Your task to perform on an android device: Is it going to rain this weekend? Image 0: 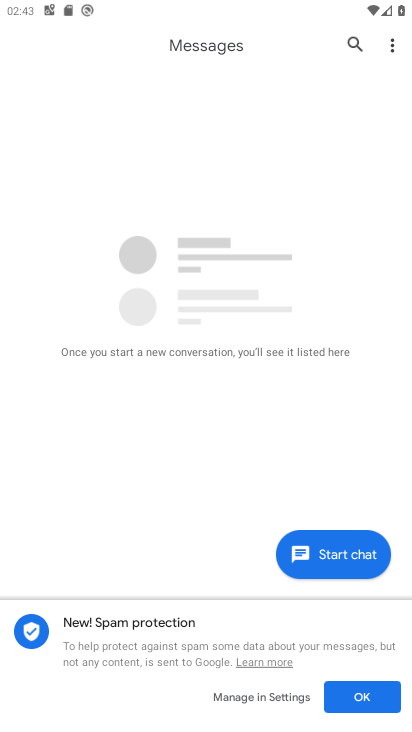
Step 0: press home button
Your task to perform on an android device: Is it going to rain this weekend? Image 1: 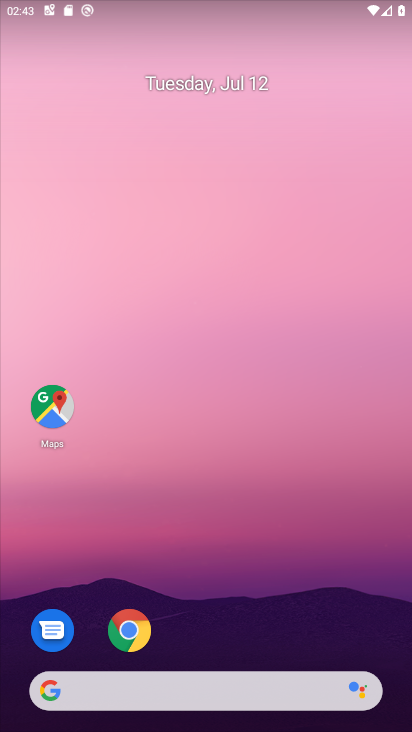
Step 1: drag from (5, 250) to (326, 279)
Your task to perform on an android device: Is it going to rain this weekend? Image 2: 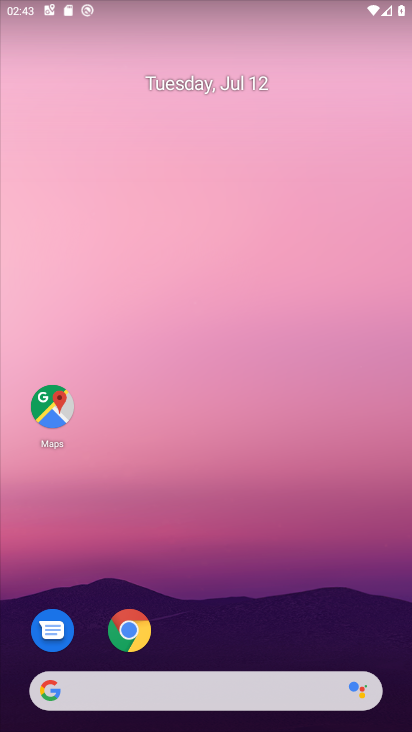
Step 2: drag from (7, 273) to (409, 252)
Your task to perform on an android device: Is it going to rain this weekend? Image 3: 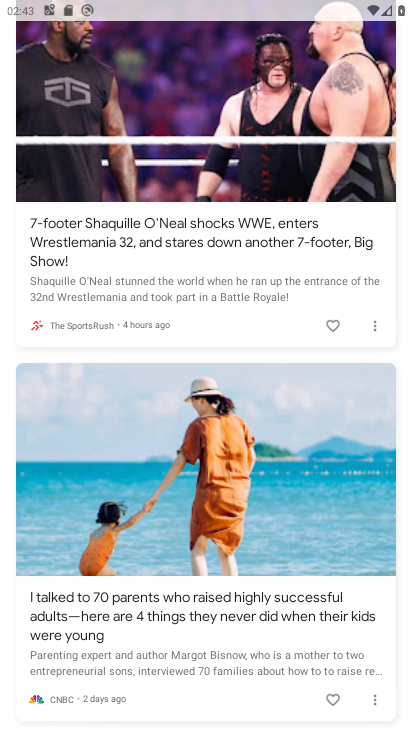
Step 3: drag from (200, 131) to (230, 549)
Your task to perform on an android device: Is it going to rain this weekend? Image 4: 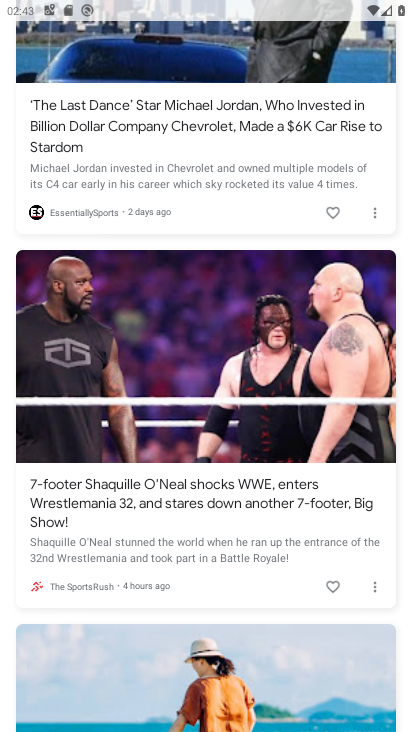
Step 4: drag from (223, 140) to (237, 599)
Your task to perform on an android device: Is it going to rain this weekend? Image 5: 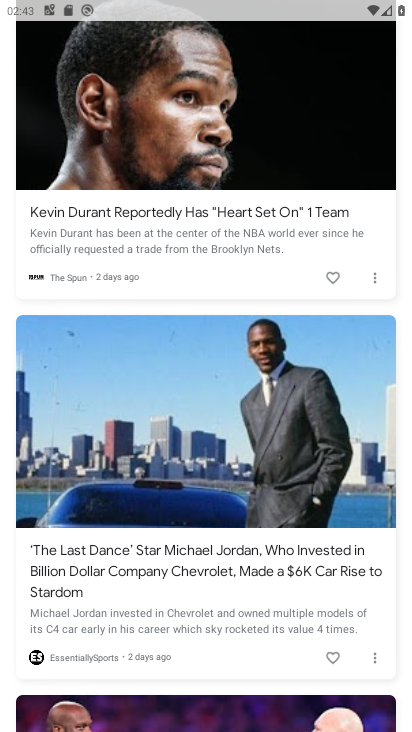
Step 5: drag from (229, 142) to (221, 526)
Your task to perform on an android device: Is it going to rain this weekend? Image 6: 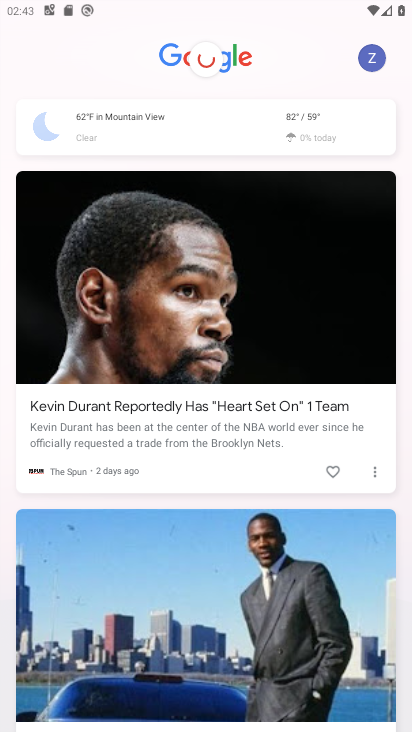
Step 6: click (303, 127)
Your task to perform on an android device: Is it going to rain this weekend? Image 7: 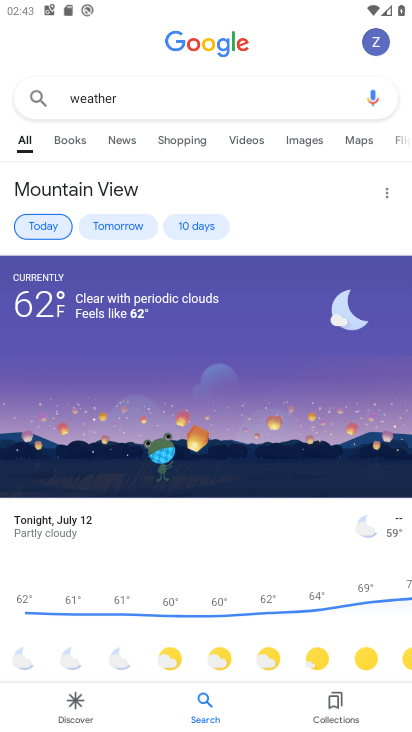
Step 7: click (194, 222)
Your task to perform on an android device: Is it going to rain this weekend? Image 8: 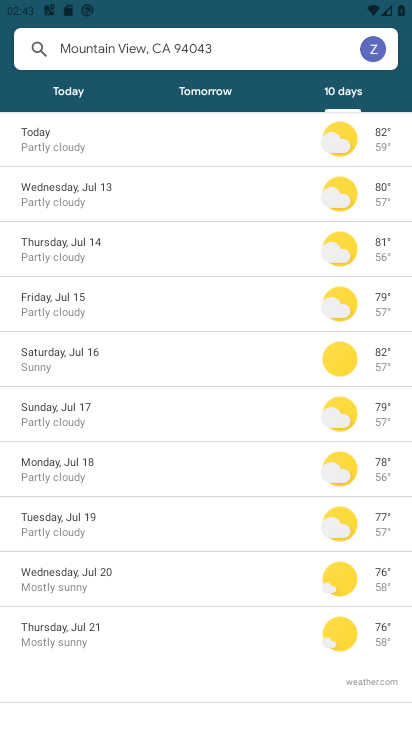
Step 8: task complete